Your task to perform on an android device: Go to network settings Image 0: 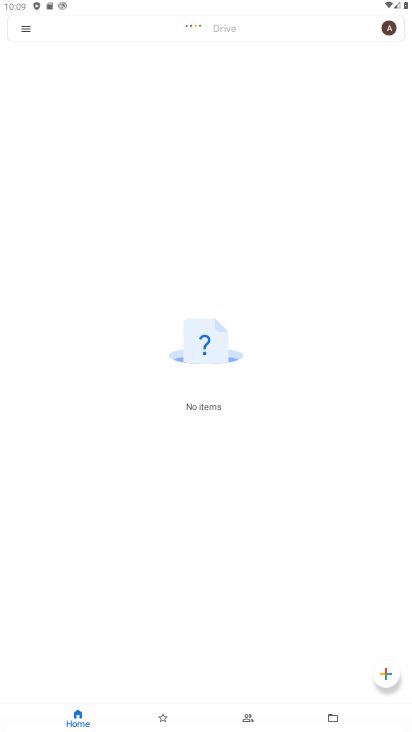
Step 0: press back button
Your task to perform on an android device: Go to network settings Image 1: 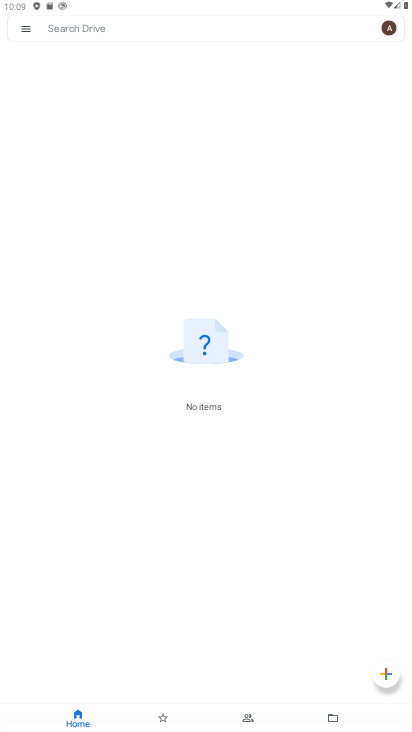
Step 1: press back button
Your task to perform on an android device: Go to network settings Image 2: 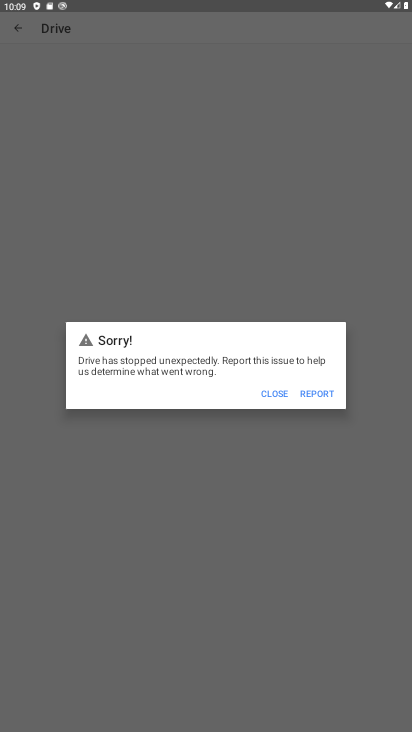
Step 2: press home button
Your task to perform on an android device: Go to network settings Image 3: 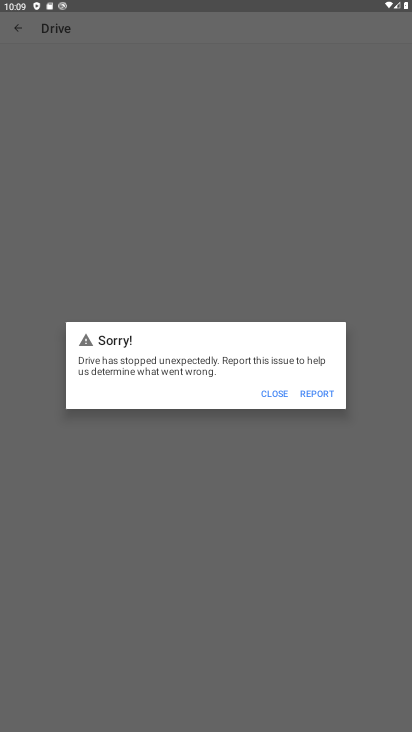
Step 3: press home button
Your task to perform on an android device: Go to network settings Image 4: 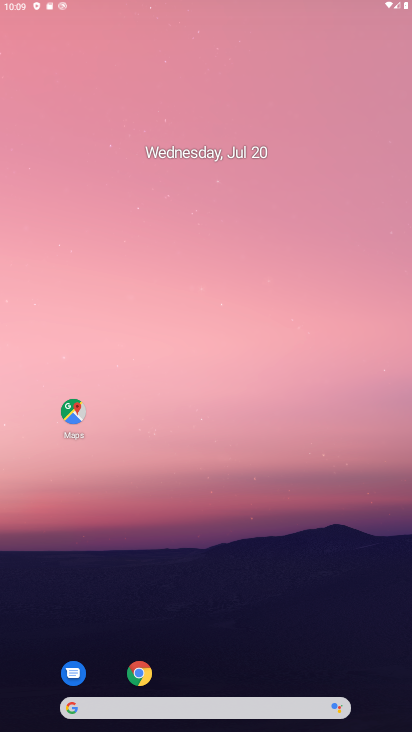
Step 4: click (263, 393)
Your task to perform on an android device: Go to network settings Image 5: 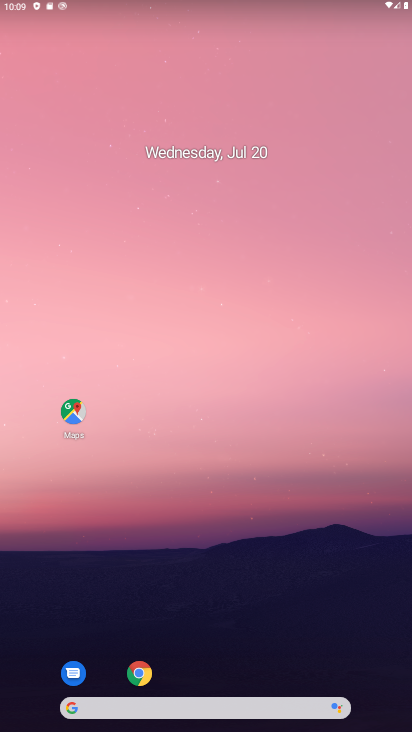
Step 5: click (263, 393)
Your task to perform on an android device: Go to network settings Image 6: 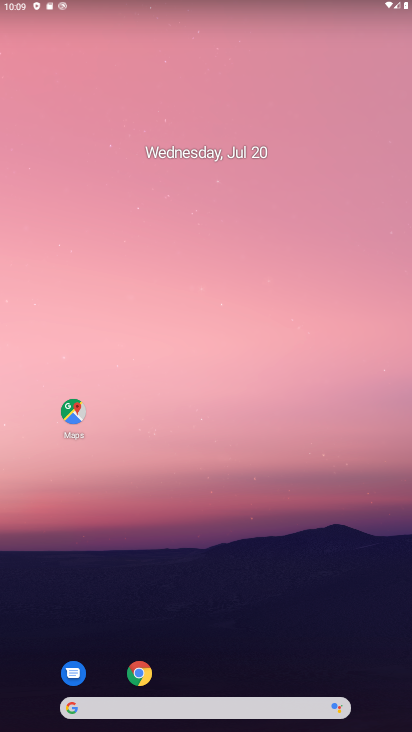
Step 6: drag from (231, 623) to (209, 189)
Your task to perform on an android device: Go to network settings Image 7: 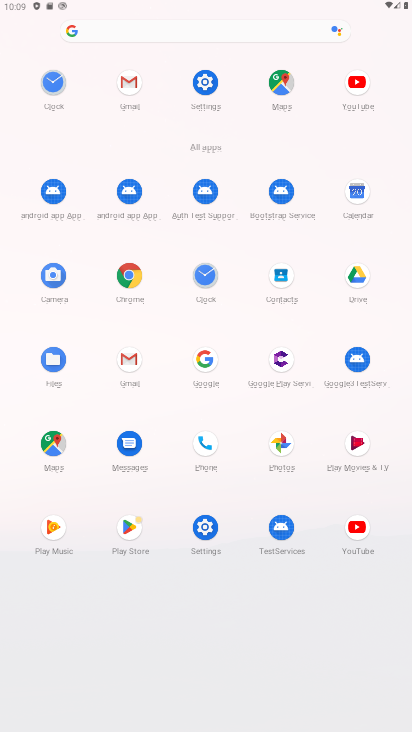
Step 7: click (200, 85)
Your task to perform on an android device: Go to network settings Image 8: 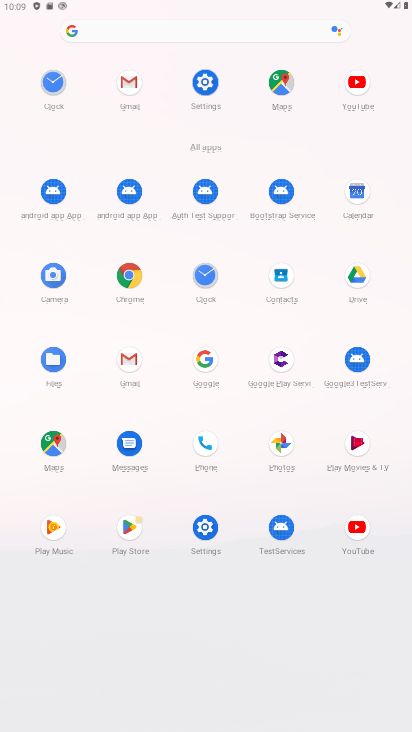
Step 8: click (202, 85)
Your task to perform on an android device: Go to network settings Image 9: 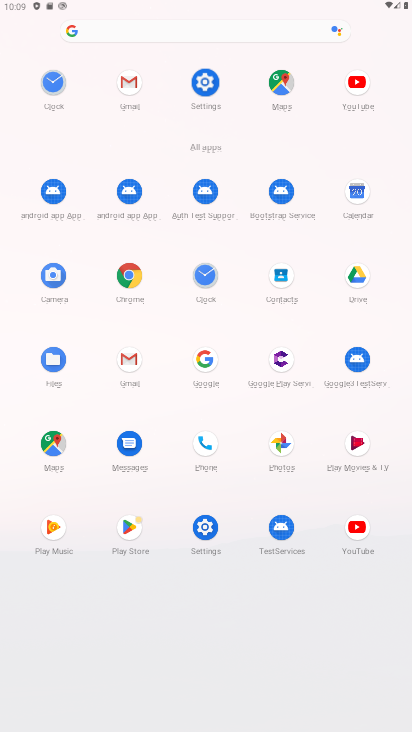
Step 9: click (202, 85)
Your task to perform on an android device: Go to network settings Image 10: 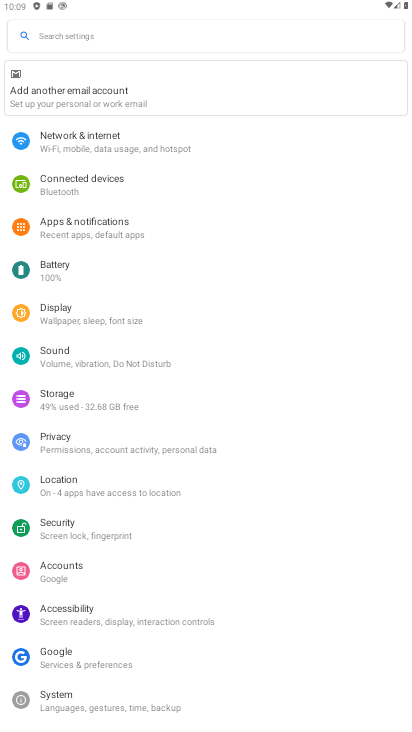
Step 10: click (86, 138)
Your task to perform on an android device: Go to network settings Image 11: 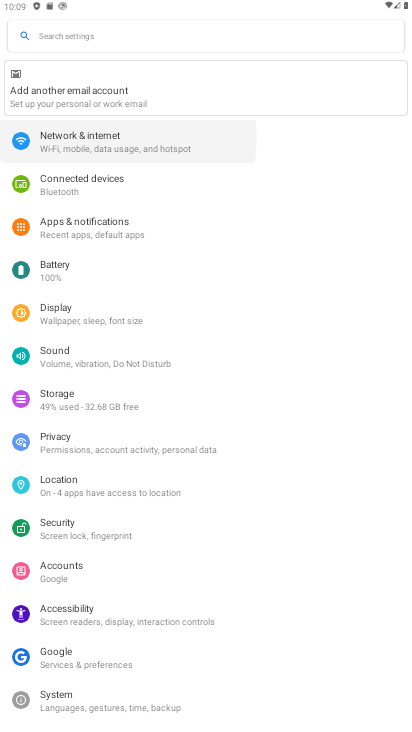
Step 11: click (85, 138)
Your task to perform on an android device: Go to network settings Image 12: 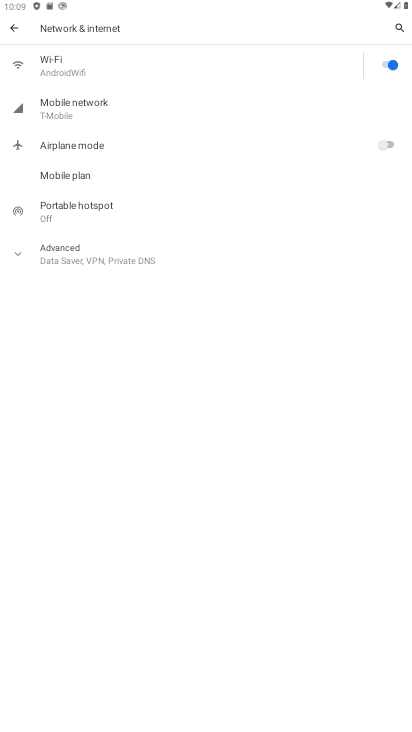
Step 12: task complete